Your task to perform on an android device: What's on my calendar today? Image 0: 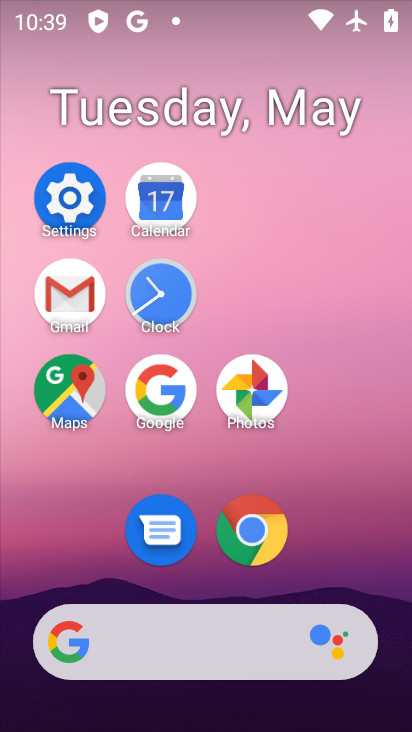
Step 0: click (152, 205)
Your task to perform on an android device: What's on my calendar today? Image 1: 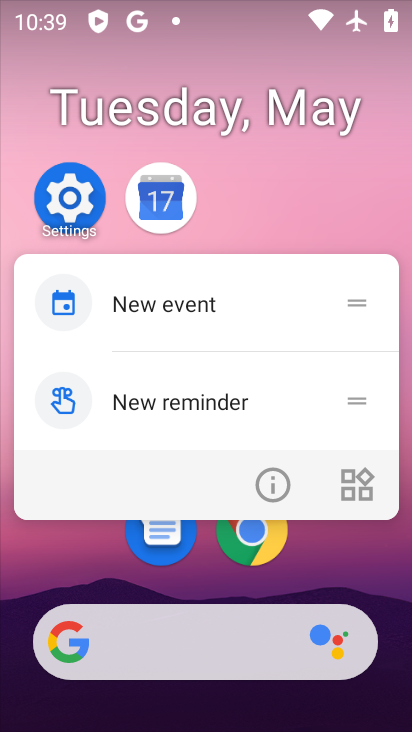
Step 1: click (163, 211)
Your task to perform on an android device: What's on my calendar today? Image 2: 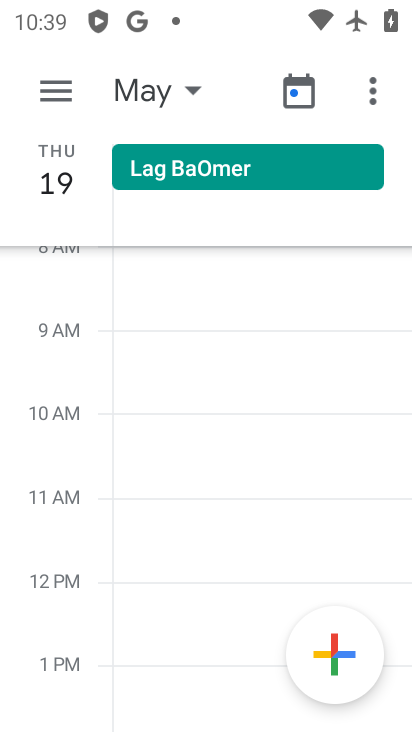
Step 2: click (75, 96)
Your task to perform on an android device: What's on my calendar today? Image 3: 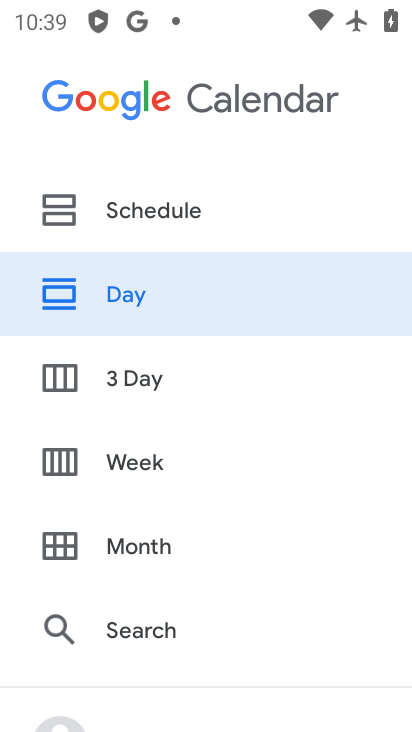
Step 3: click (118, 291)
Your task to perform on an android device: What's on my calendar today? Image 4: 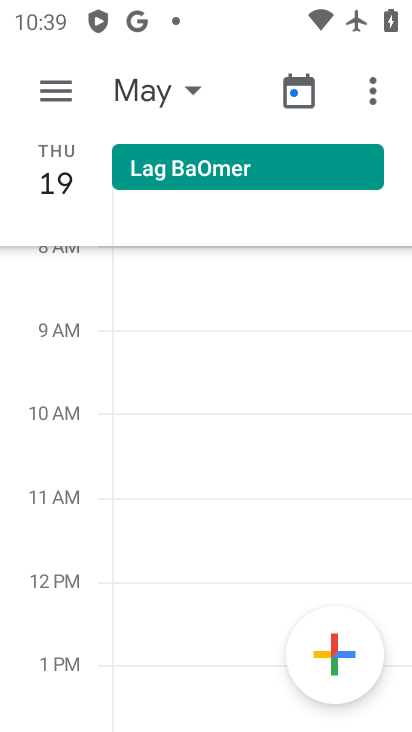
Step 4: task complete